Your task to perform on an android device: add a contact in the contacts app Image 0: 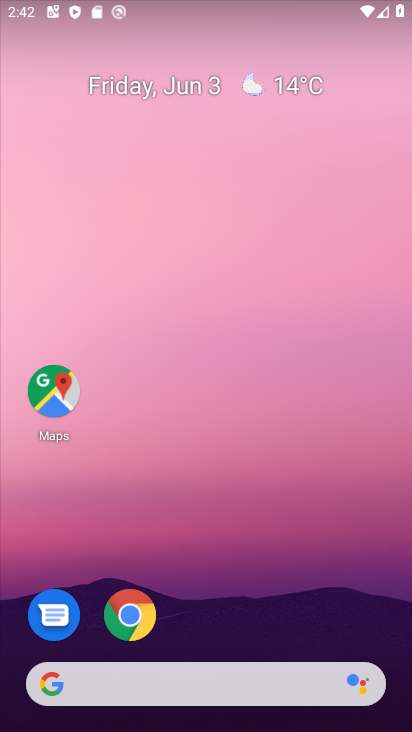
Step 0: press home button
Your task to perform on an android device: add a contact in the contacts app Image 1: 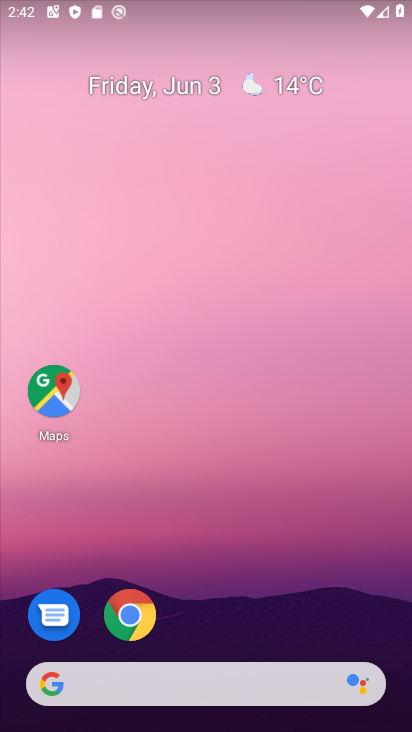
Step 1: drag from (228, 630) to (284, 177)
Your task to perform on an android device: add a contact in the contacts app Image 2: 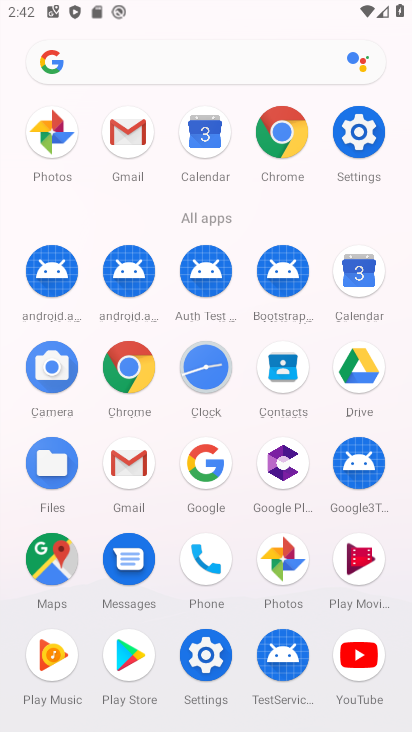
Step 2: click (288, 360)
Your task to perform on an android device: add a contact in the contacts app Image 3: 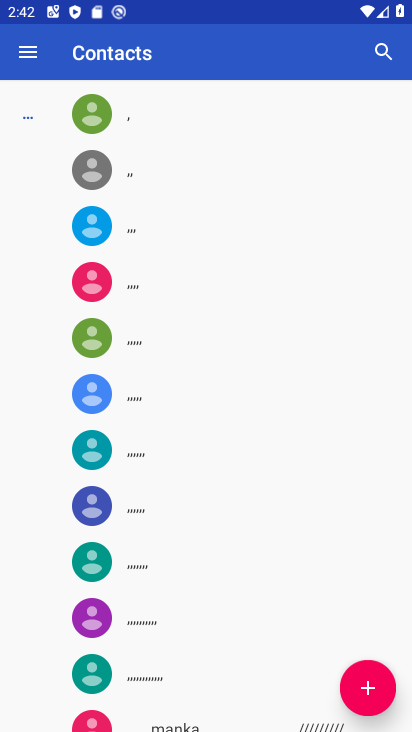
Step 3: click (371, 687)
Your task to perform on an android device: add a contact in the contacts app Image 4: 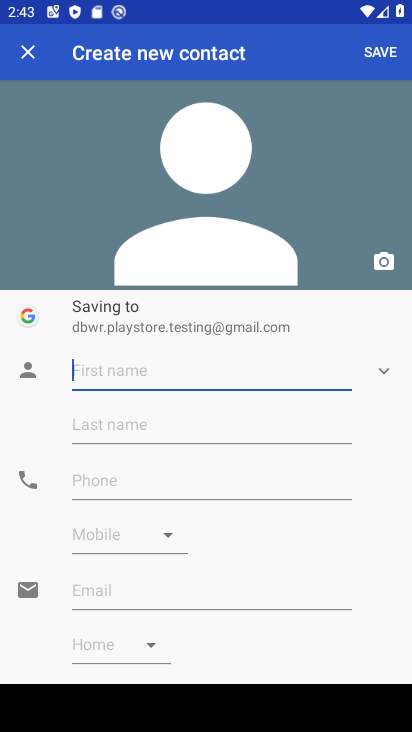
Step 4: type "hghhghghg"
Your task to perform on an android device: add a contact in the contacts app Image 5: 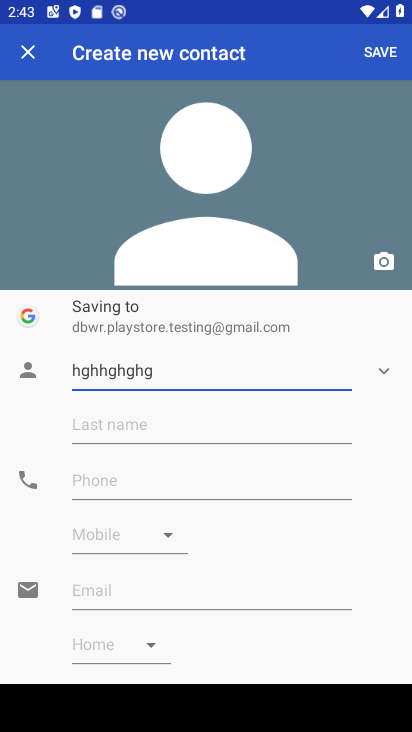
Step 5: click (94, 477)
Your task to perform on an android device: add a contact in the contacts app Image 6: 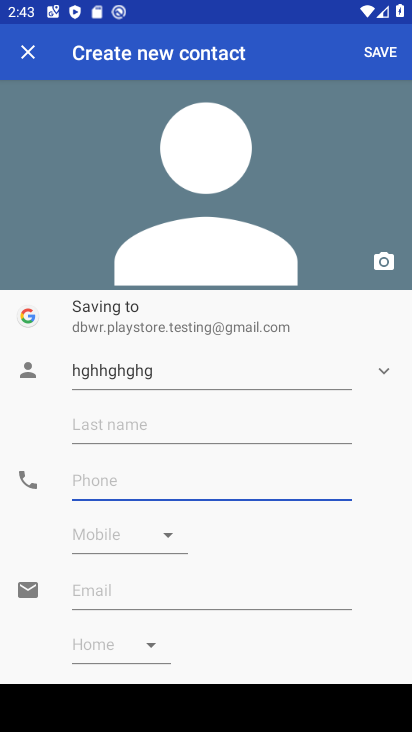
Step 6: type "777676"
Your task to perform on an android device: add a contact in the contacts app Image 7: 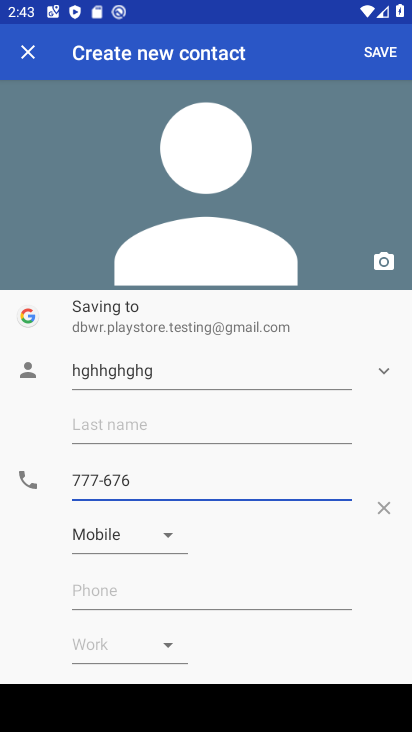
Step 7: click (377, 47)
Your task to perform on an android device: add a contact in the contacts app Image 8: 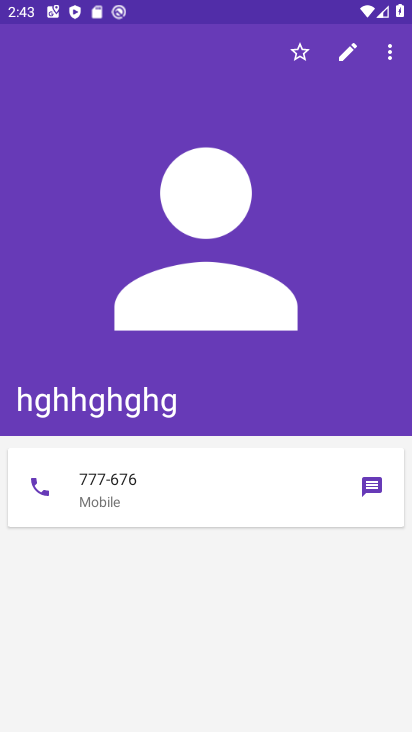
Step 8: task complete